Your task to perform on an android device: choose inbox layout in the gmail app Image 0: 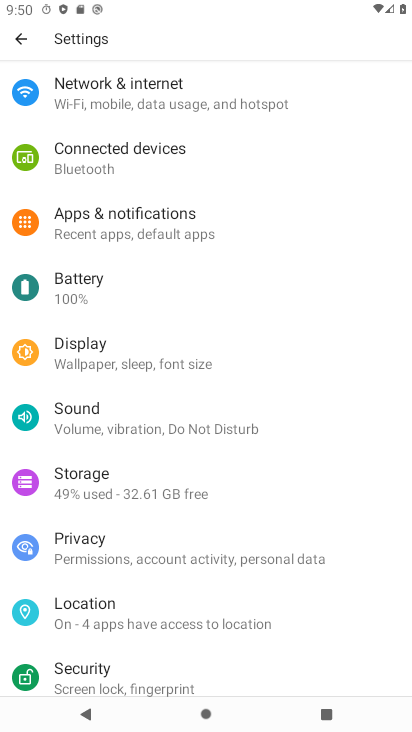
Step 0: drag from (232, 637) to (227, 249)
Your task to perform on an android device: choose inbox layout in the gmail app Image 1: 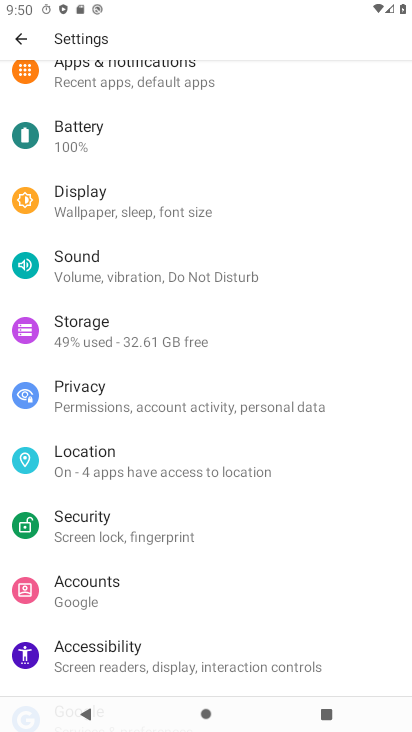
Step 1: press back button
Your task to perform on an android device: choose inbox layout in the gmail app Image 2: 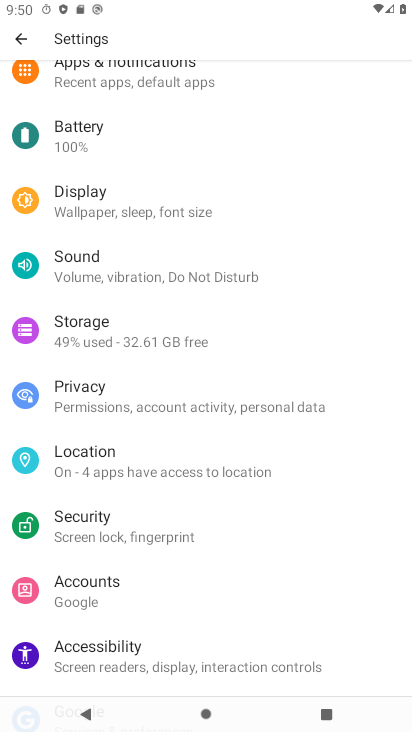
Step 2: press back button
Your task to perform on an android device: choose inbox layout in the gmail app Image 3: 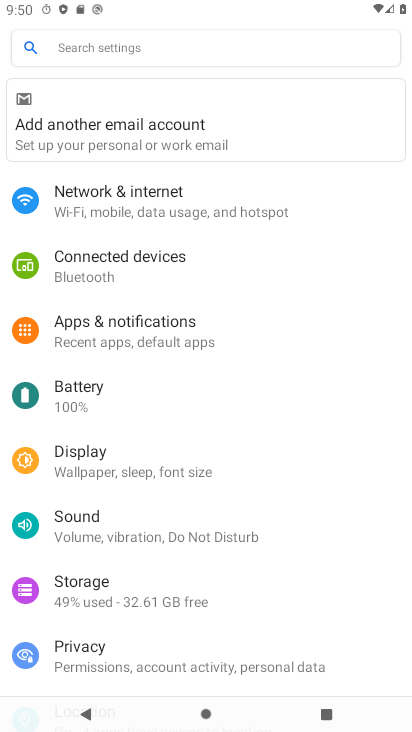
Step 3: press home button
Your task to perform on an android device: choose inbox layout in the gmail app Image 4: 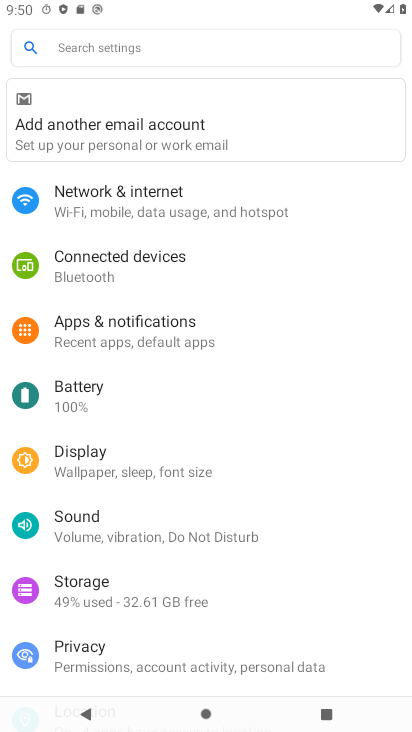
Step 4: click (112, 197)
Your task to perform on an android device: choose inbox layout in the gmail app Image 5: 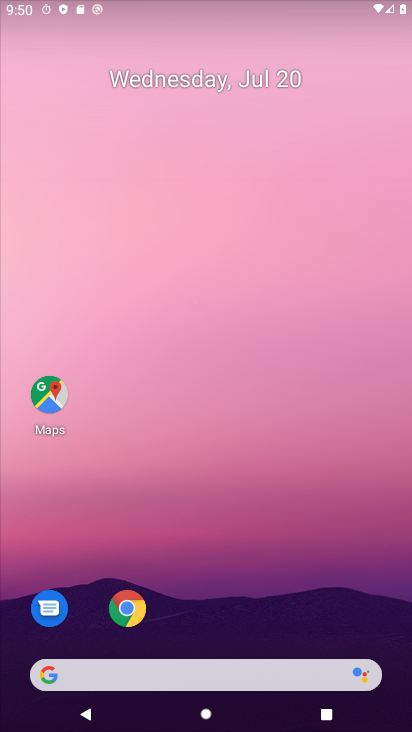
Step 5: drag from (219, 665) to (289, 365)
Your task to perform on an android device: choose inbox layout in the gmail app Image 6: 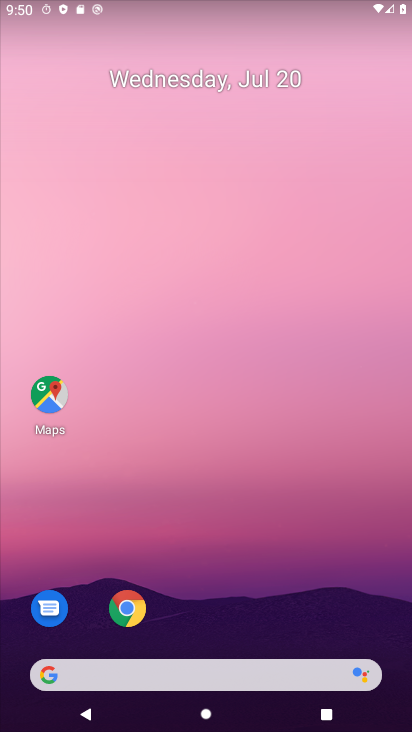
Step 6: drag from (183, 611) to (260, 112)
Your task to perform on an android device: choose inbox layout in the gmail app Image 7: 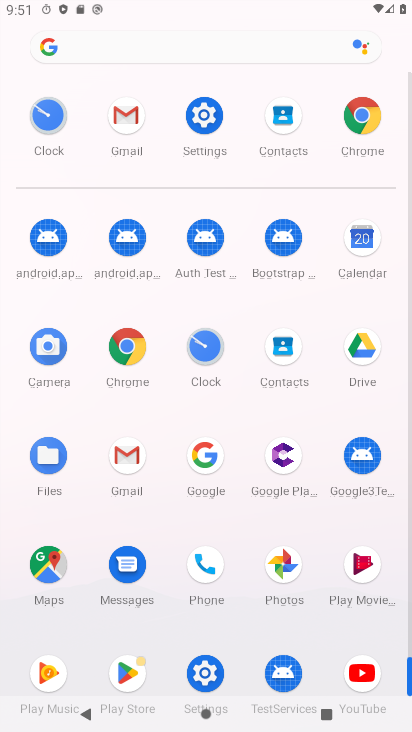
Step 7: click (118, 130)
Your task to perform on an android device: choose inbox layout in the gmail app Image 8: 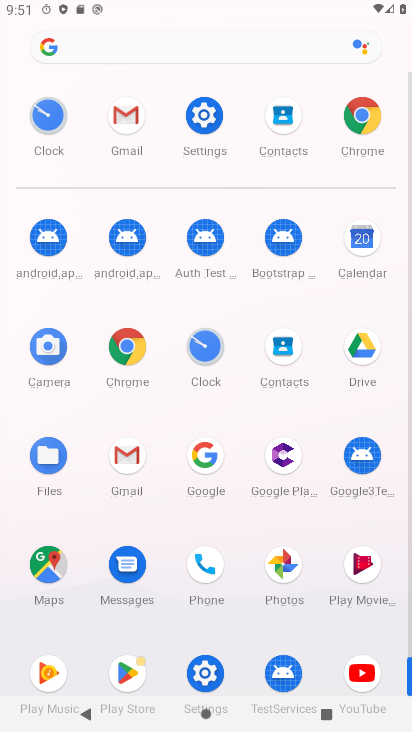
Step 8: click (118, 130)
Your task to perform on an android device: choose inbox layout in the gmail app Image 9: 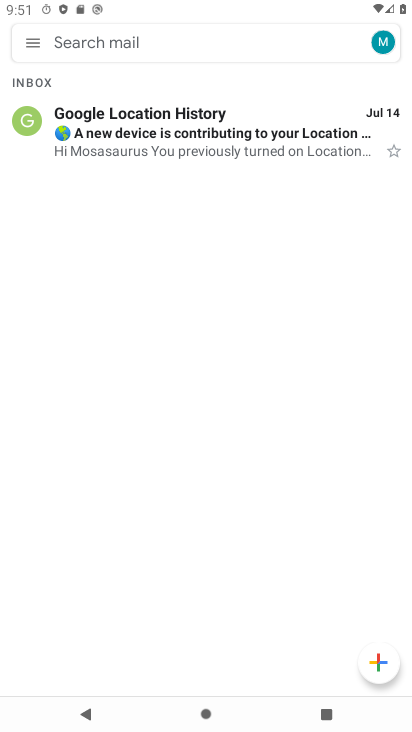
Step 9: click (321, 139)
Your task to perform on an android device: choose inbox layout in the gmail app Image 10: 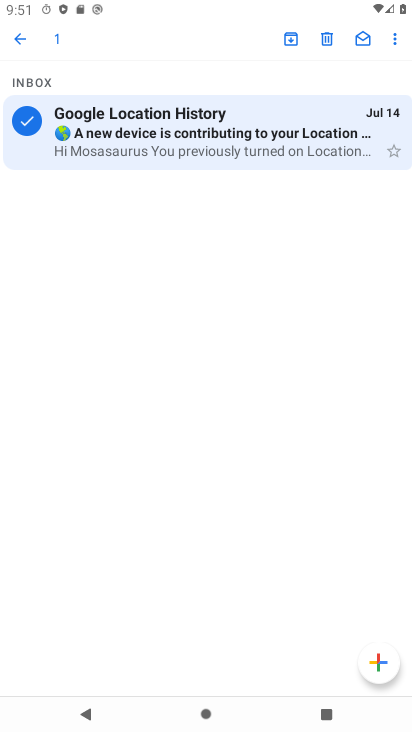
Step 10: click (401, 34)
Your task to perform on an android device: choose inbox layout in the gmail app Image 11: 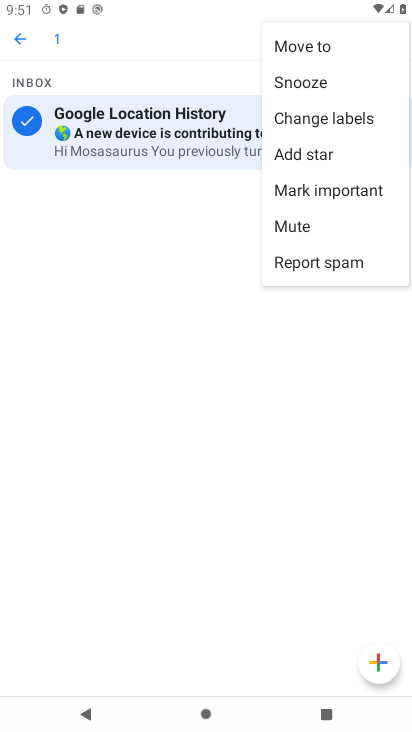
Step 11: click (184, 284)
Your task to perform on an android device: choose inbox layout in the gmail app Image 12: 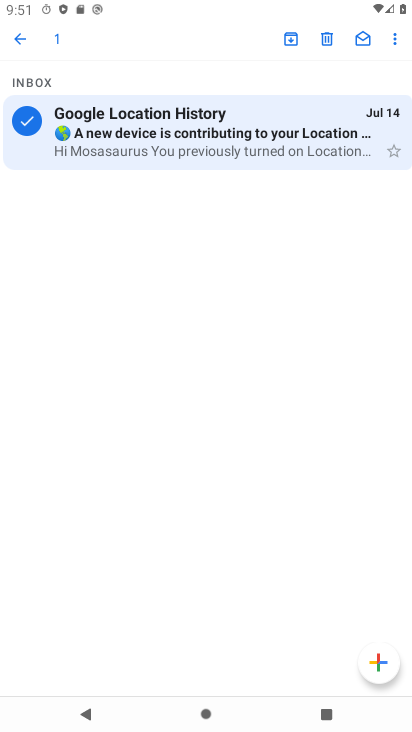
Step 12: click (175, 144)
Your task to perform on an android device: choose inbox layout in the gmail app Image 13: 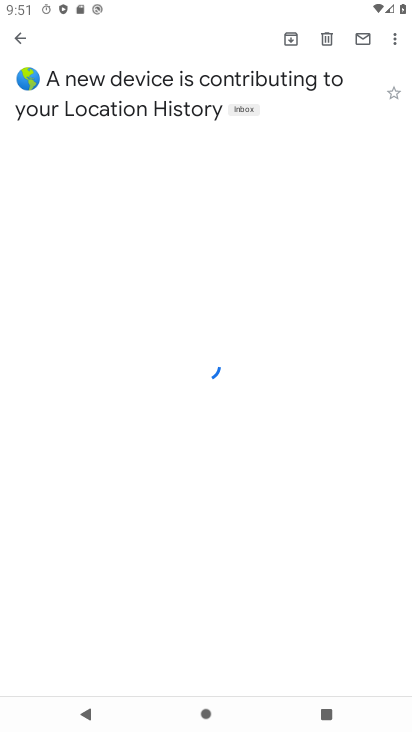
Step 13: click (19, 21)
Your task to perform on an android device: choose inbox layout in the gmail app Image 14: 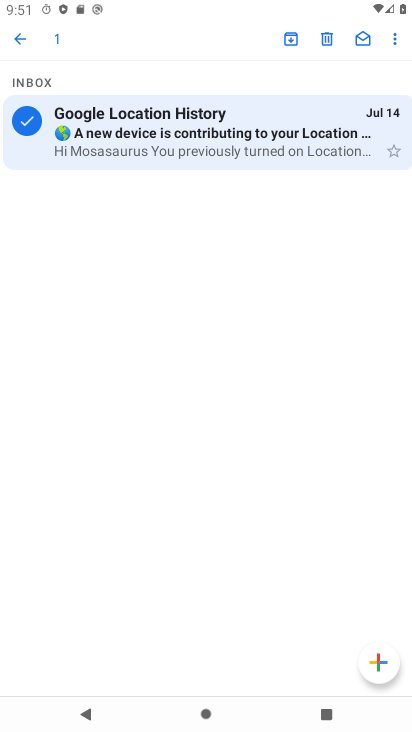
Step 14: click (25, 36)
Your task to perform on an android device: choose inbox layout in the gmail app Image 15: 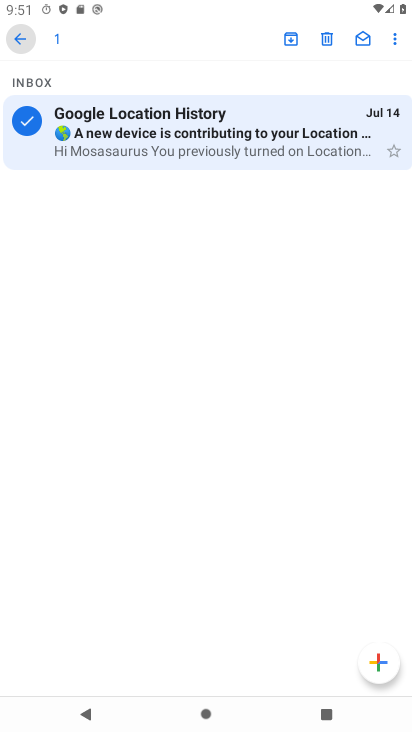
Step 15: click (24, 35)
Your task to perform on an android device: choose inbox layout in the gmail app Image 16: 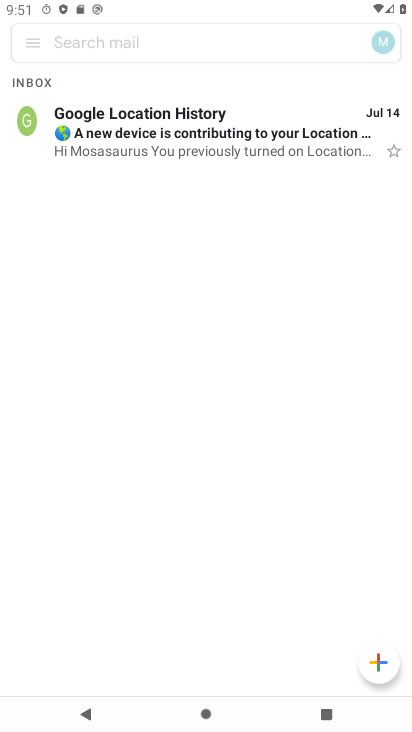
Step 16: click (25, 34)
Your task to perform on an android device: choose inbox layout in the gmail app Image 17: 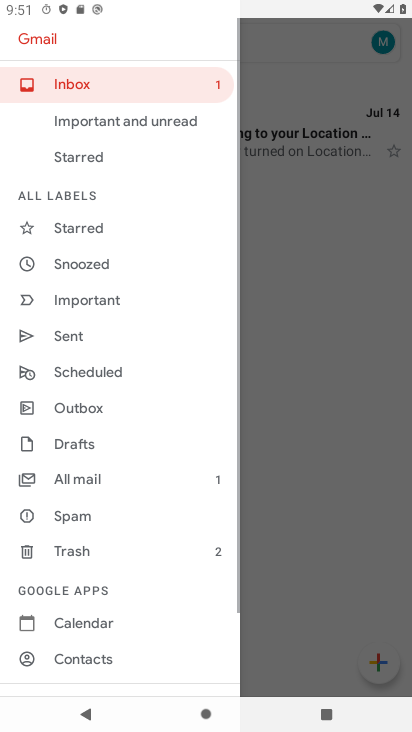
Step 17: drag from (25, 34) to (97, 647)
Your task to perform on an android device: choose inbox layout in the gmail app Image 18: 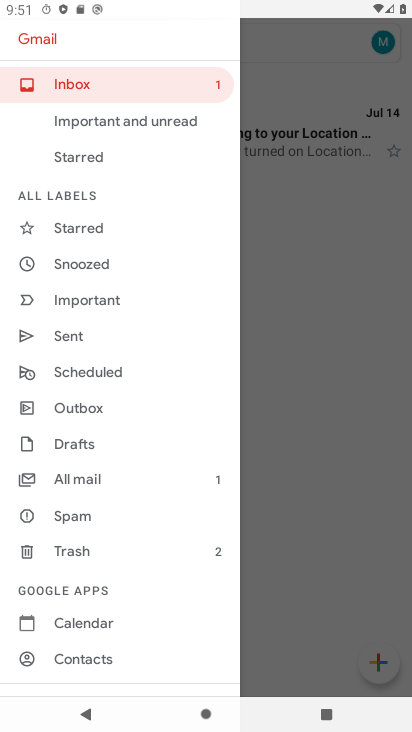
Step 18: drag from (92, 627) to (136, 258)
Your task to perform on an android device: choose inbox layout in the gmail app Image 19: 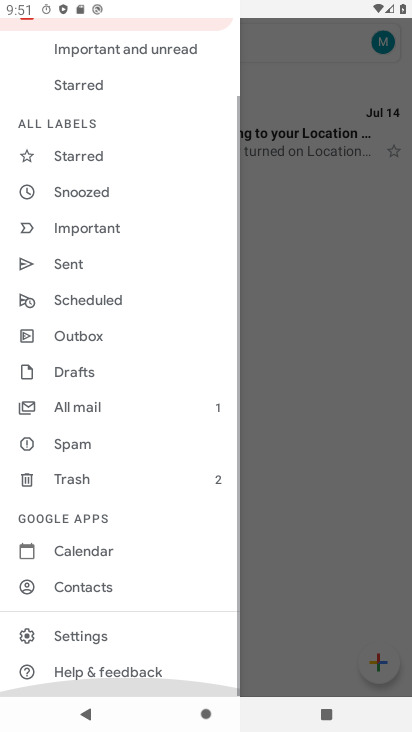
Step 19: drag from (107, 509) to (107, 244)
Your task to perform on an android device: choose inbox layout in the gmail app Image 20: 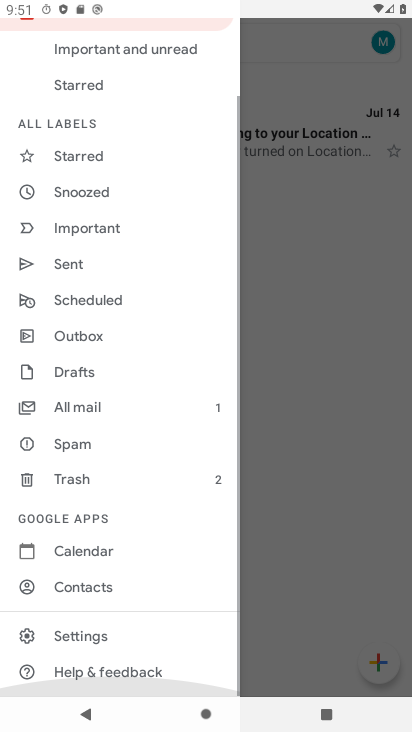
Step 20: drag from (103, 415) to (54, 38)
Your task to perform on an android device: choose inbox layout in the gmail app Image 21: 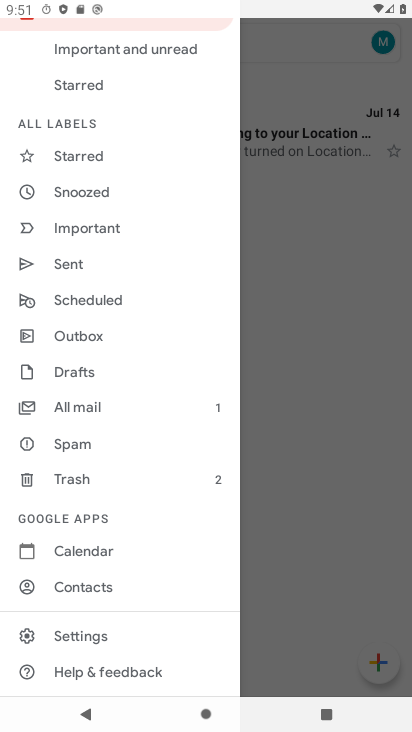
Step 21: click (84, 629)
Your task to perform on an android device: choose inbox layout in the gmail app Image 22: 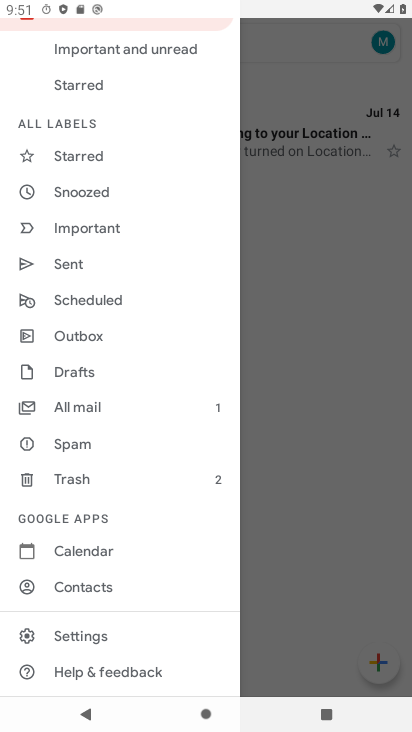
Step 22: click (84, 629)
Your task to perform on an android device: choose inbox layout in the gmail app Image 23: 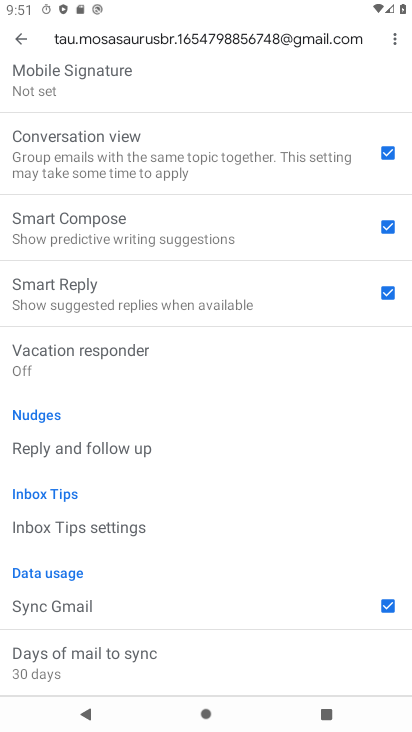
Step 23: task complete